Your task to perform on an android device: Search for seafood restaurants on Google Maps Image 0: 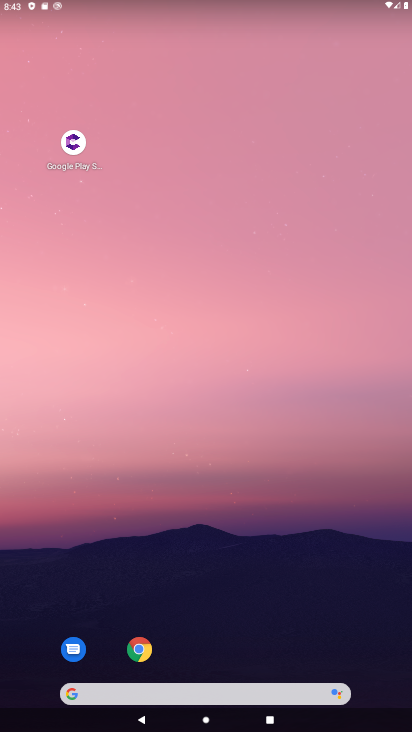
Step 0: drag from (193, 728) to (191, 6)
Your task to perform on an android device: Search for seafood restaurants on Google Maps Image 1: 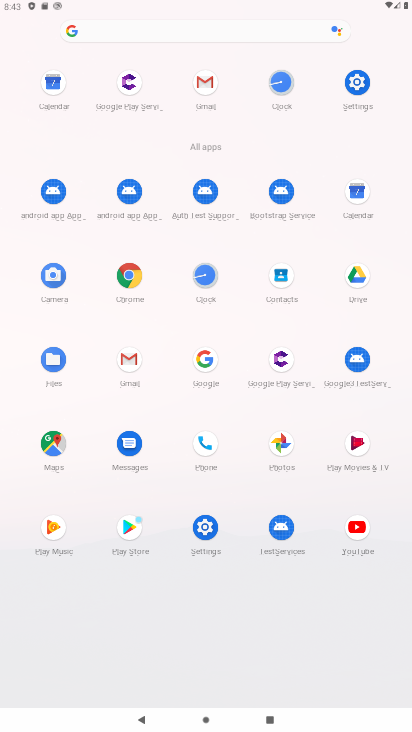
Step 1: click (49, 442)
Your task to perform on an android device: Search for seafood restaurants on Google Maps Image 2: 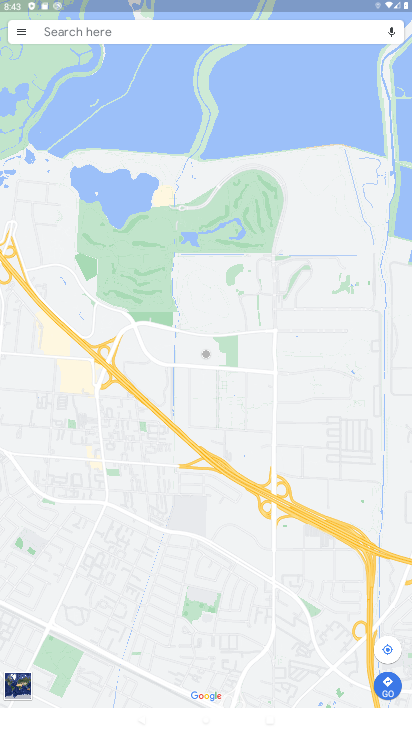
Step 2: click (214, 28)
Your task to perform on an android device: Search for seafood restaurants on Google Maps Image 3: 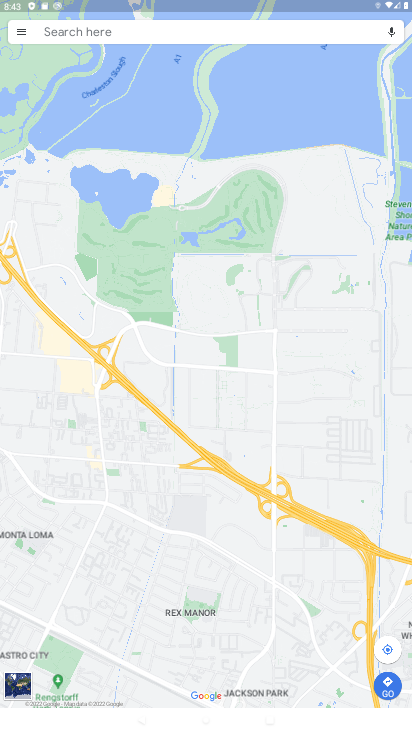
Step 3: click (208, 27)
Your task to perform on an android device: Search for seafood restaurants on Google Maps Image 4: 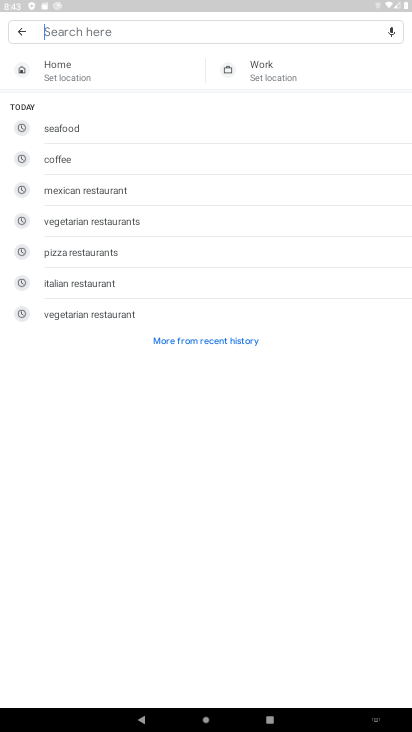
Step 4: type "seafood restaurants"
Your task to perform on an android device: Search for seafood restaurants on Google Maps Image 5: 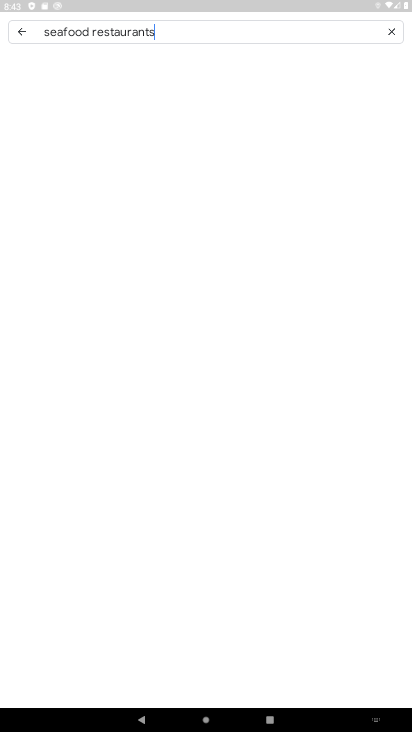
Step 5: type ""
Your task to perform on an android device: Search for seafood restaurants on Google Maps Image 6: 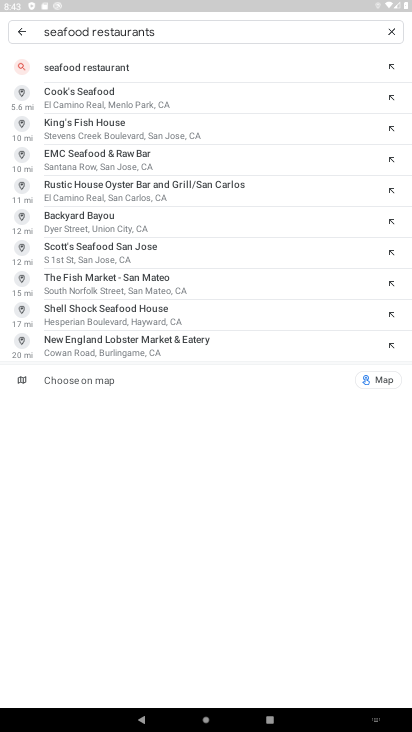
Step 6: click (102, 68)
Your task to perform on an android device: Search for seafood restaurants on Google Maps Image 7: 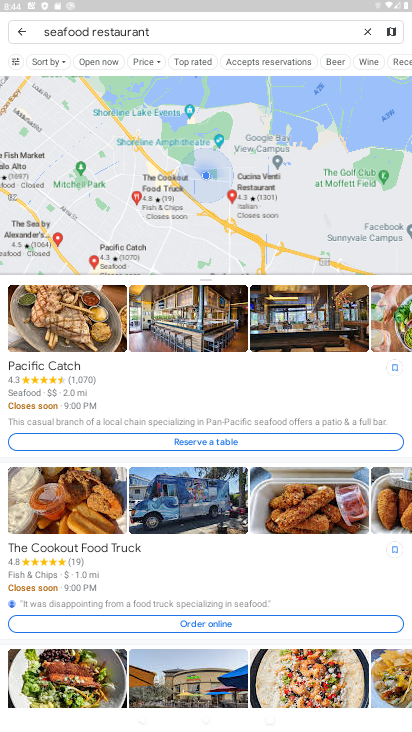
Step 7: task complete